Your task to perform on an android device: Go to settings Image 0: 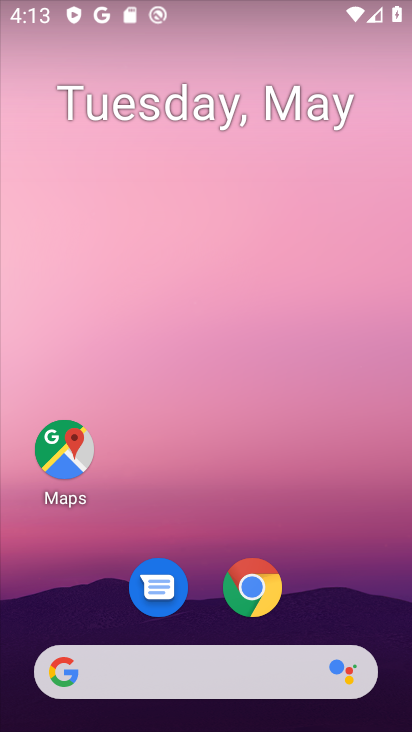
Step 0: drag from (351, 623) to (366, 141)
Your task to perform on an android device: Go to settings Image 1: 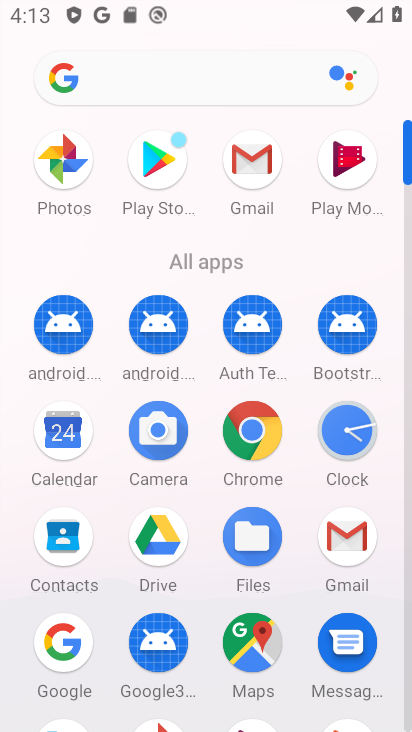
Step 1: drag from (299, 578) to (297, 277)
Your task to perform on an android device: Go to settings Image 2: 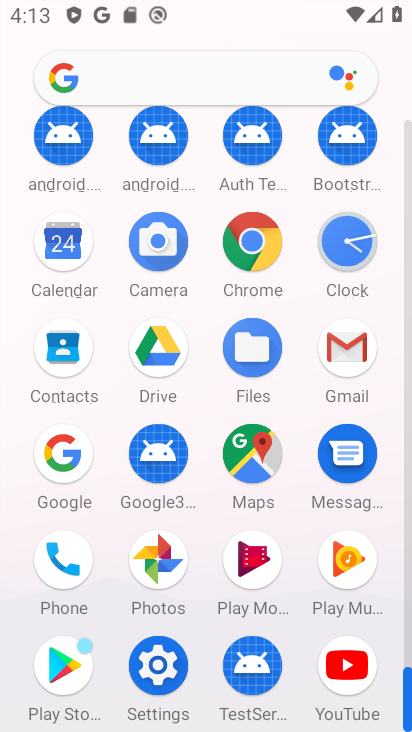
Step 2: click (150, 669)
Your task to perform on an android device: Go to settings Image 3: 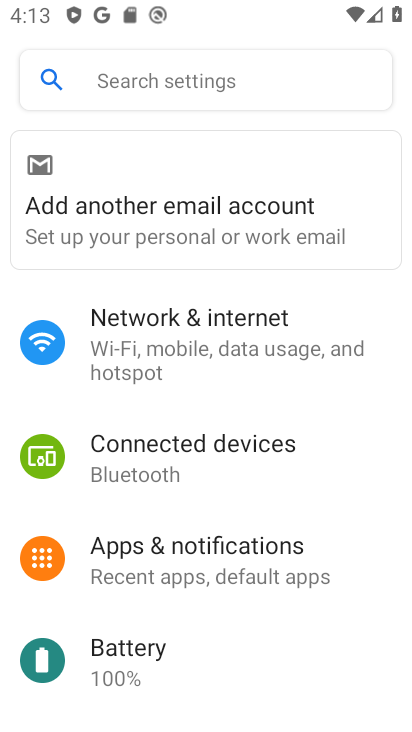
Step 3: task complete